Your task to perform on an android device: open a bookmark in the chrome app Image 0: 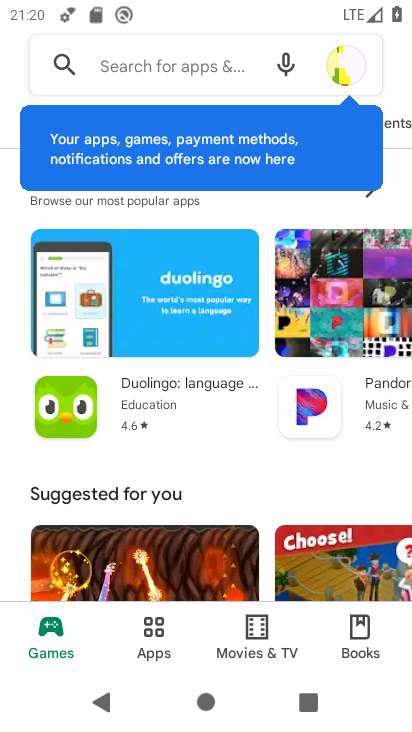
Step 0: press home button
Your task to perform on an android device: open a bookmark in the chrome app Image 1: 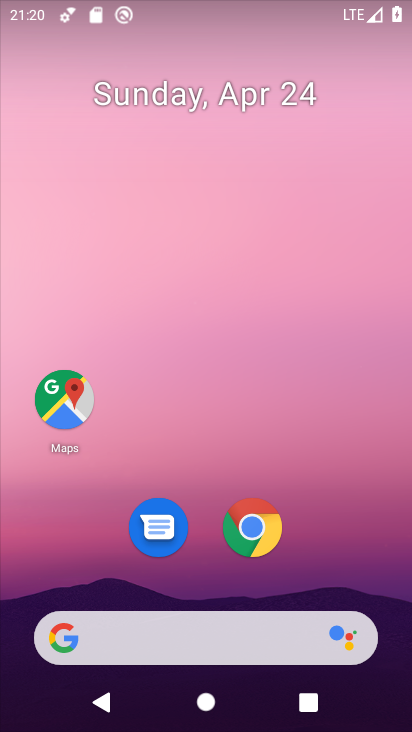
Step 1: click (273, 533)
Your task to perform on an android device: open a bookmark in the chrome app Image 2: 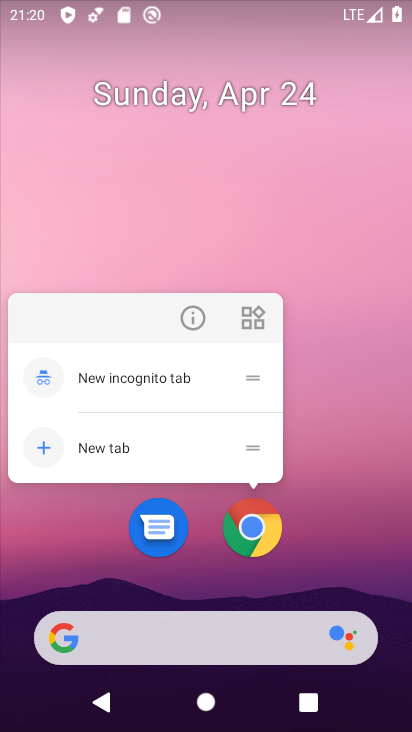
Step 2: click (273, 533)
Your task to perform on an android device: open a bookmark in the chrome app Image 3: 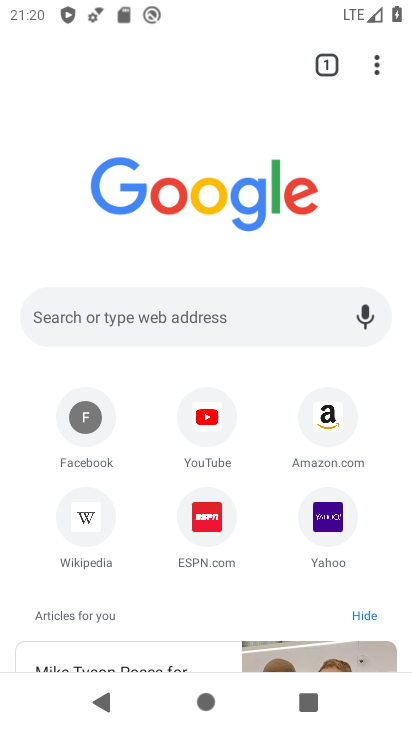
Step 3: task complete